Your task to perform on an android device: open app "Spotify: Music and Podcasts" (install if not already installed) and go to login screen Image 0: 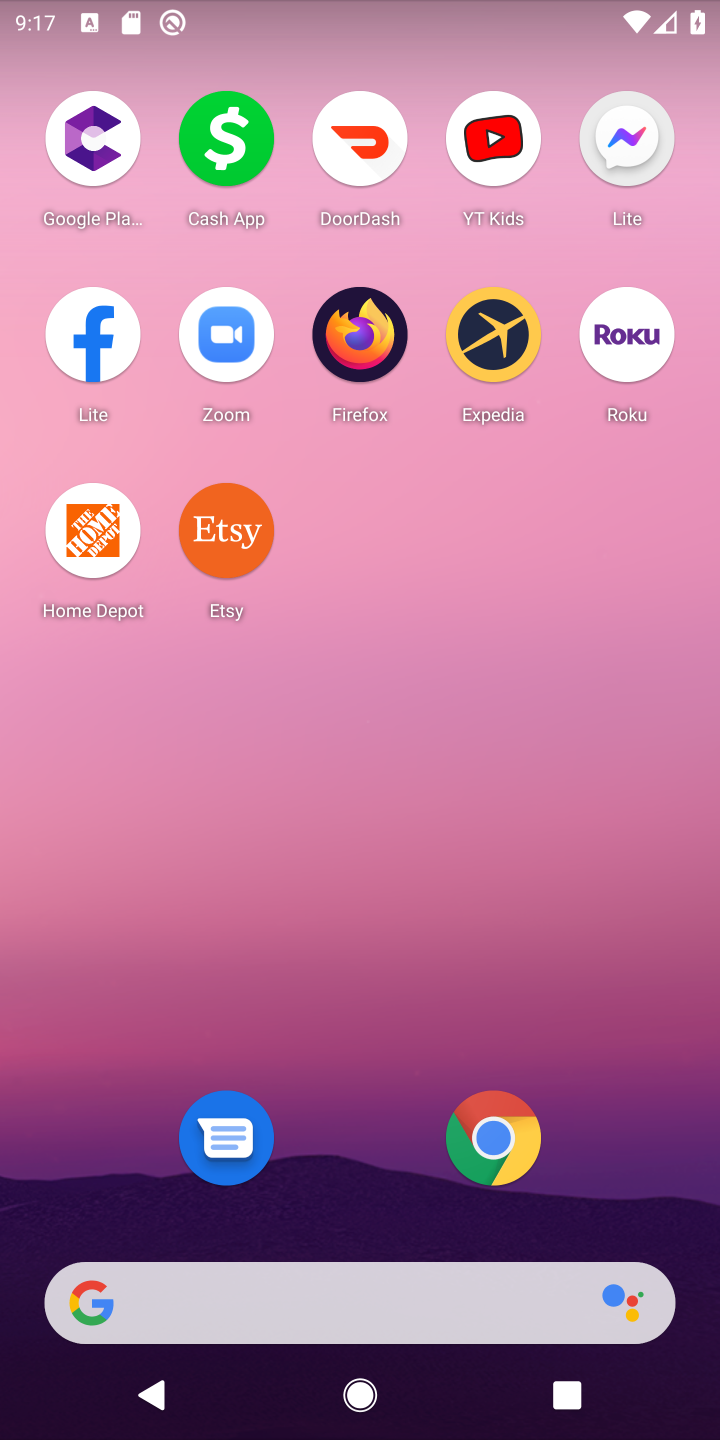
Step 0: drag from (274, 1294) to (273, 308)
Your task to perform on an android device: open app "Spotify: Music and Podcasts" (install if not already installed) and go to login screen Image 1: 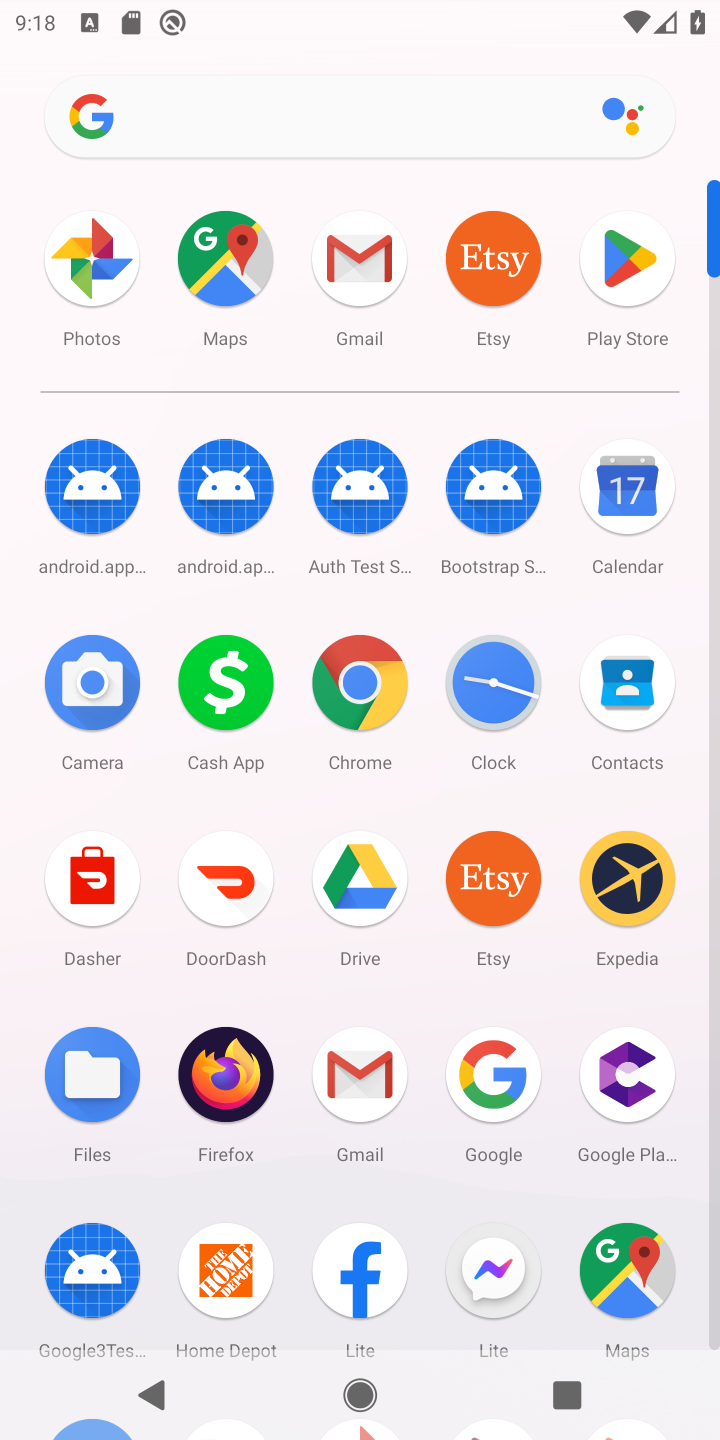
Step 1: click (621, 290)
Your task to perform on an android device: open app "Spotify: Music and Podcasts" (install if not already installed) and go to login screen Image 2: 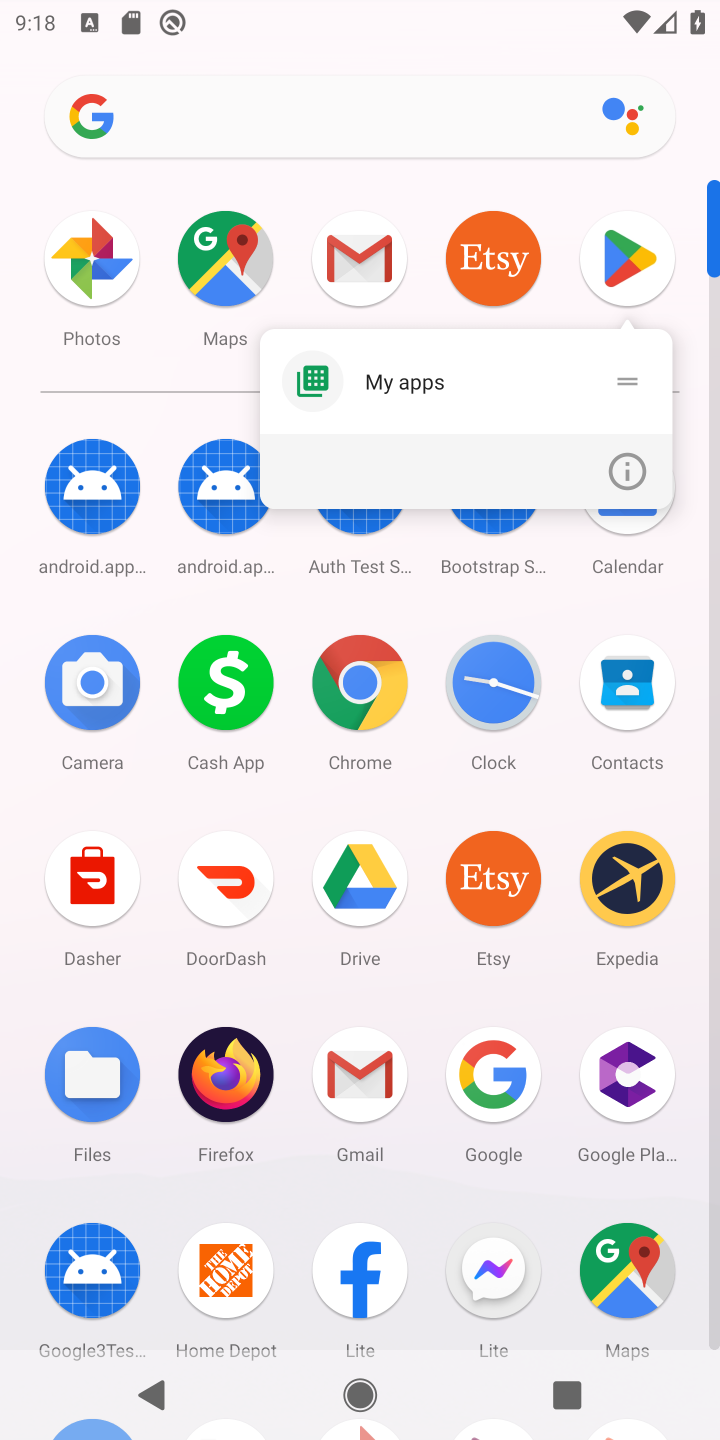
Step 2: click (621, 290)
Your task to perform on an android device: open app "Spotify: Music and Podcasts" (install if not already installed) and go to login screen Image 3: 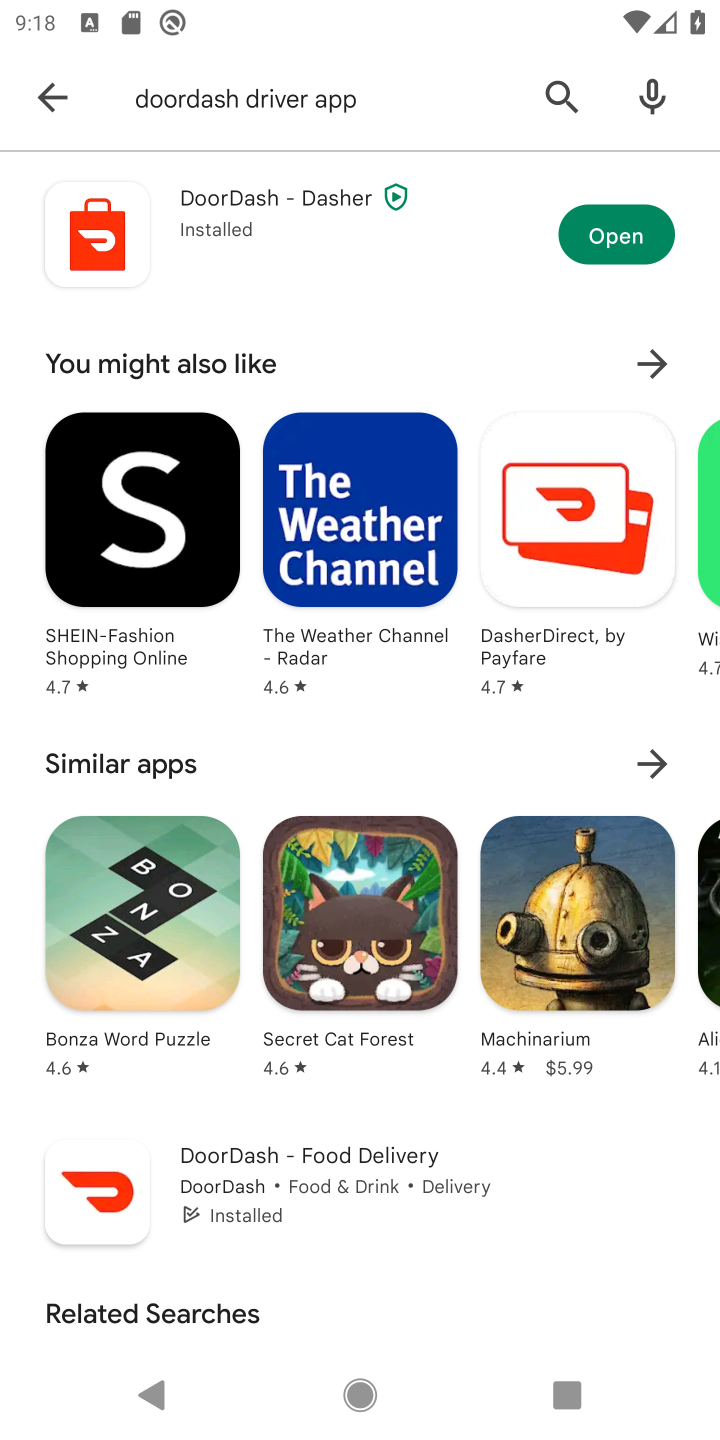
Step 3: click (47, 83)
Your task to perform on an android device: open app "Spotify: Music and Podcasts" (install if not already installed) and go to login screen Image 4: 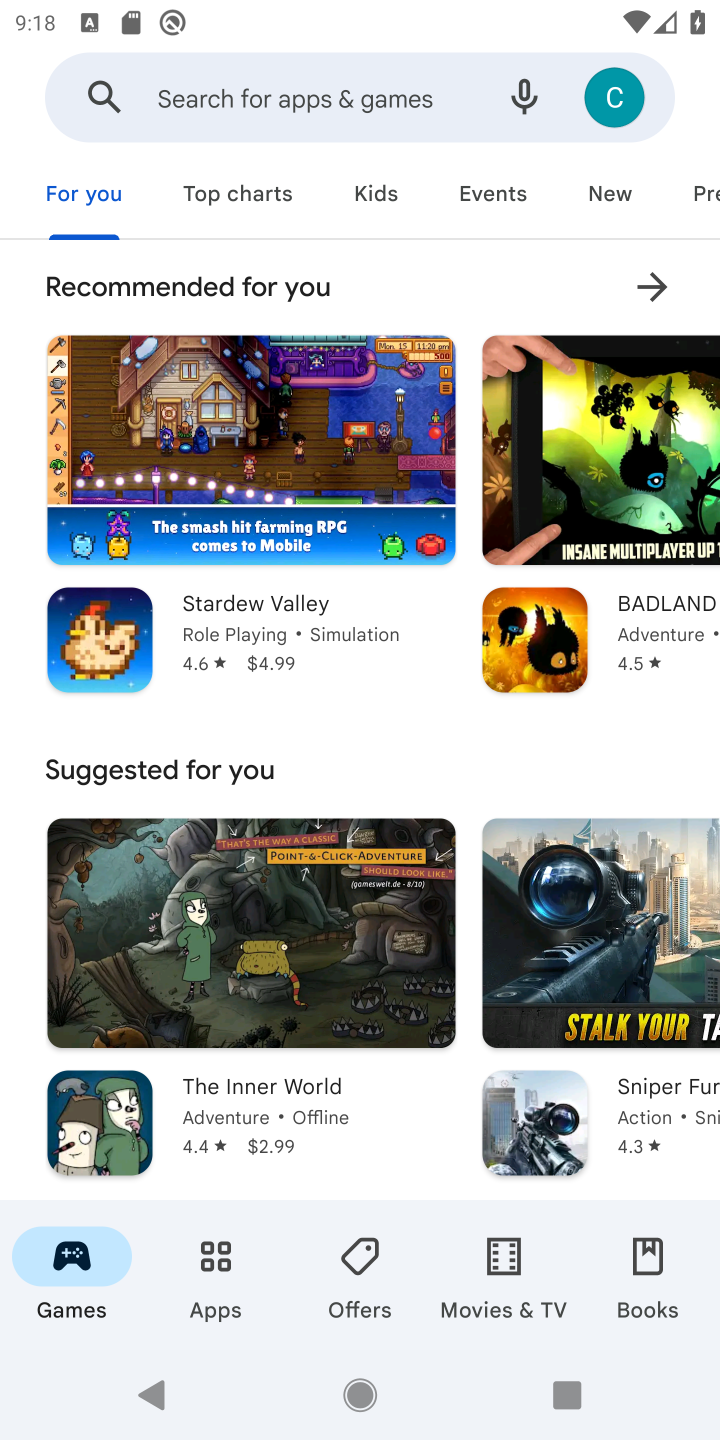
Step 4: click (426, 75)
Your task to perform on an android device: open app "Spotify: Music and Podcasts" (install if not already installed) and go to login screen Image 5: 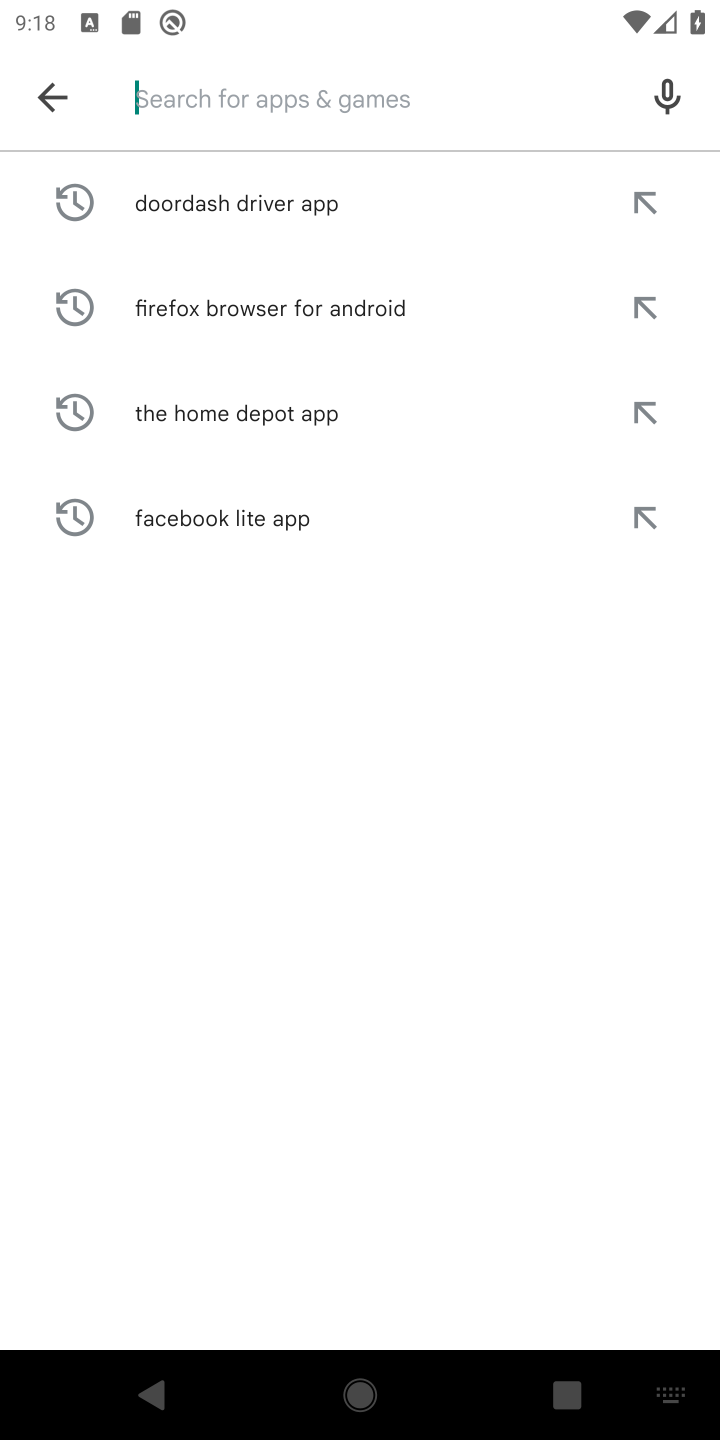
Step 5: type "Spotify: "
Your task to perform on an android device: open app "Spotify: Music and Podcasts" (install if not already installed) and go to login screen Image 6: 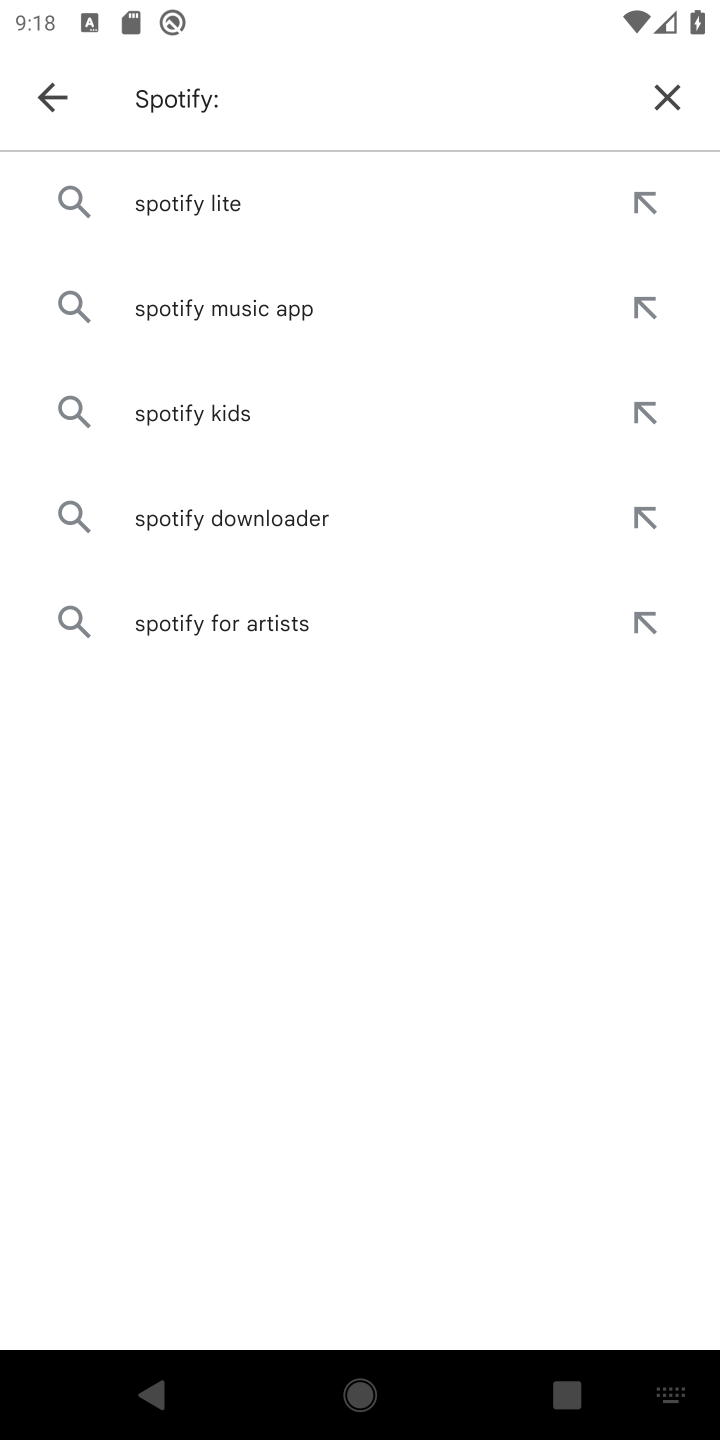
Step 6: click (300, 296)
Your task to perform on an android device: open app "Spotify: Music and Podcasts" (install if not already installed) and go to login screen Image 7: 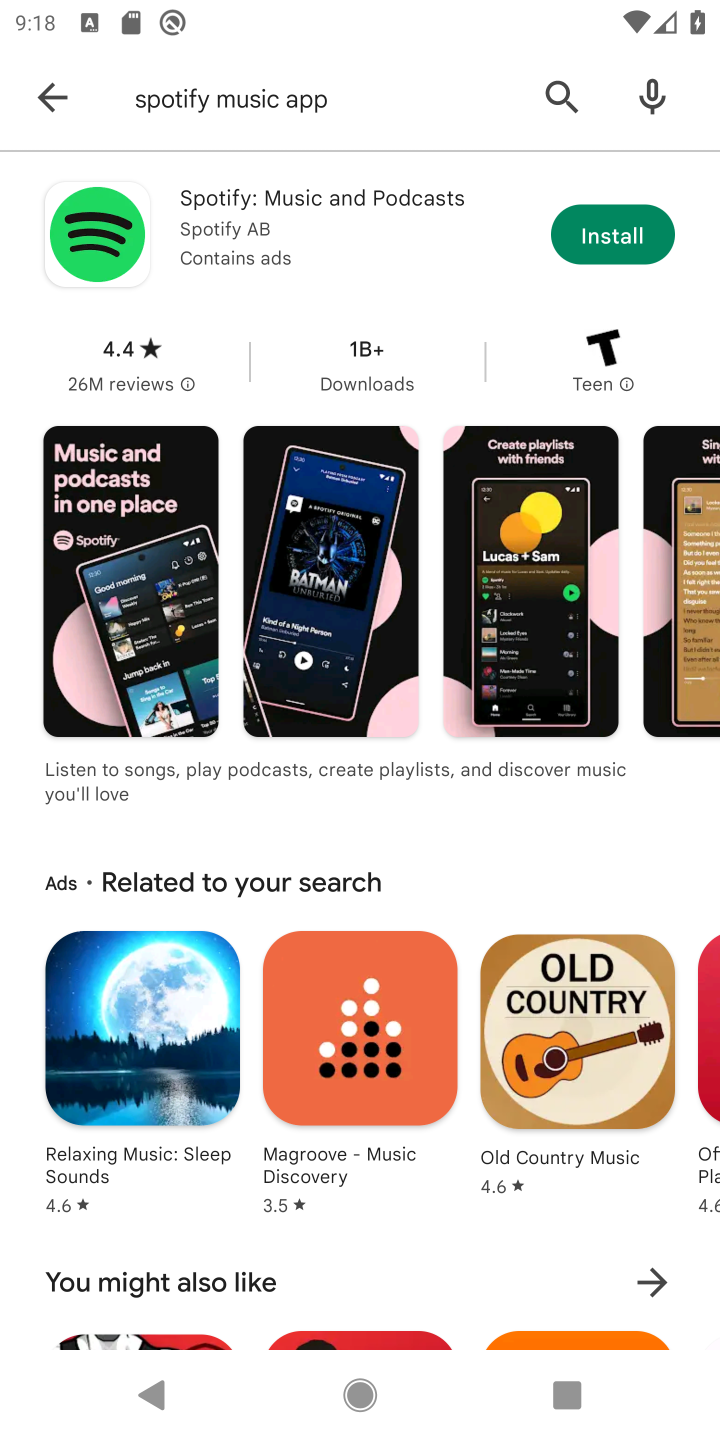
Step 7: click (634, 222)
Your task to perform on an android device: open app "Spotify: Music and Podcasts" (install if not already installed) and go to login screen Image 8: 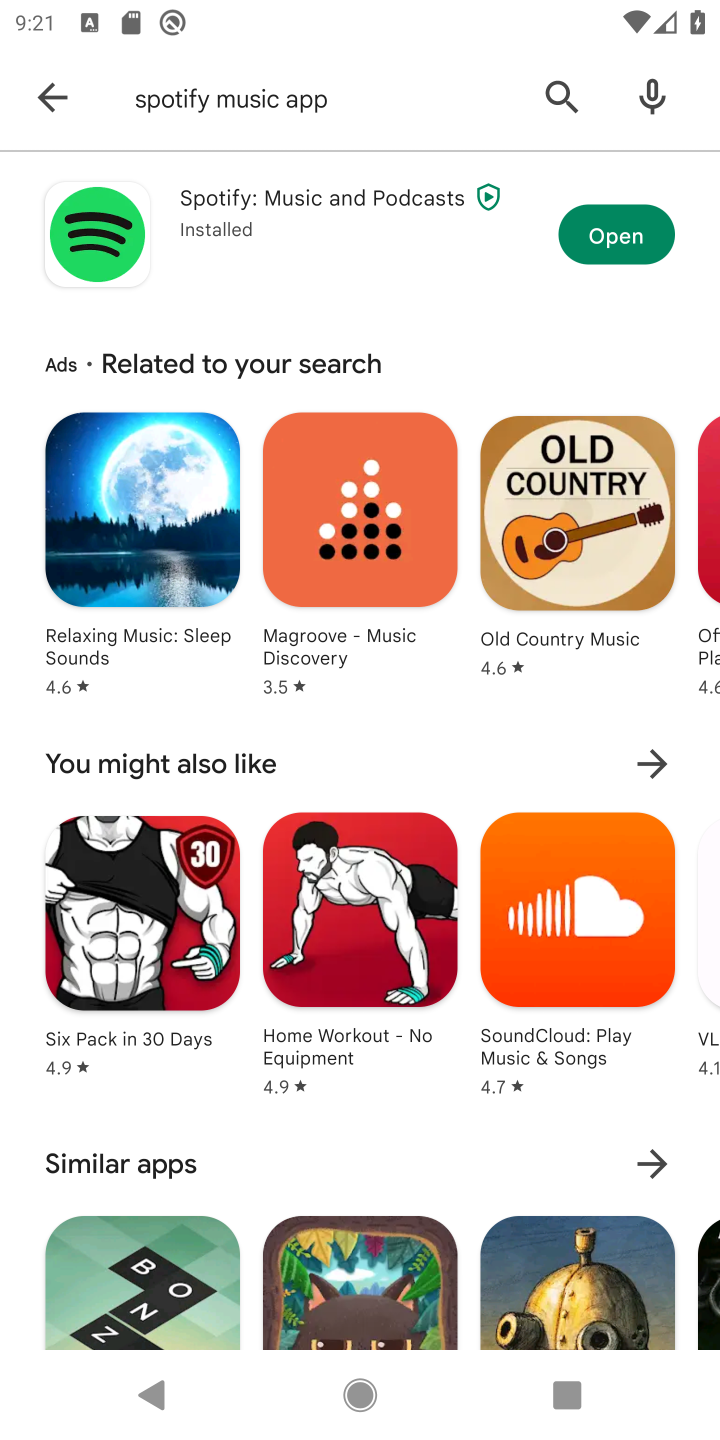
Step 8: click (636, 221)
Your task to perform on an android device: open app "Spotify: Music and Podcasts" (install if not already installed) and go to login screen Image 9: 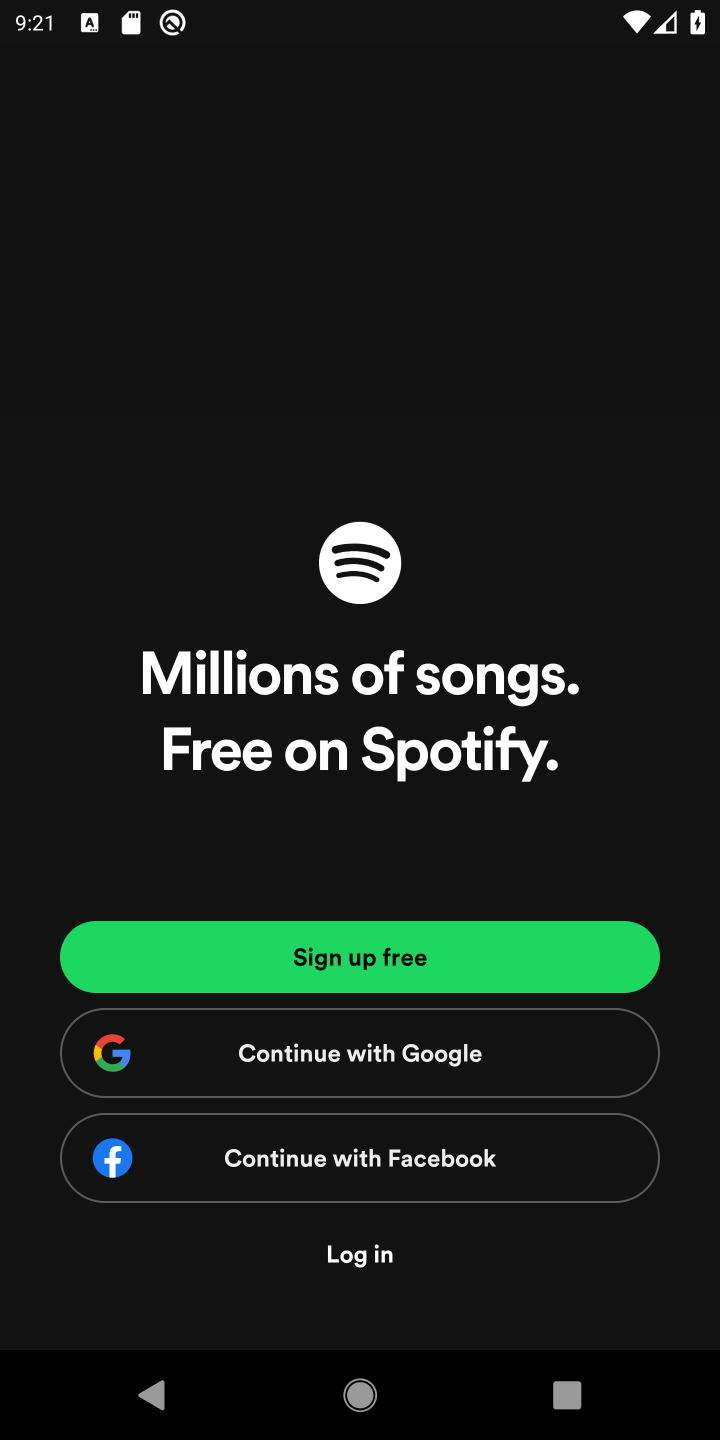
Step 9: task complete